Your task to perform on an android device: Open Amazon Image 0: 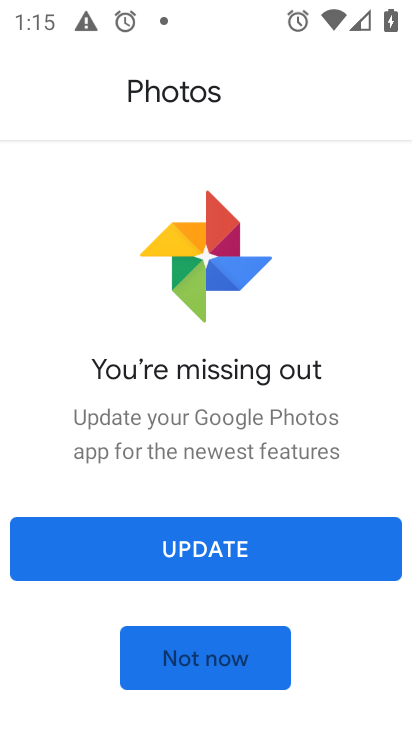
Step 0: press home button
Your task to perform on an android device: Open Amazon Image 1: 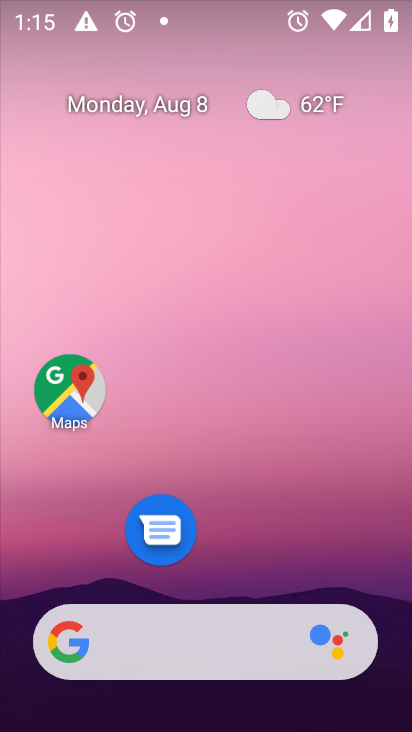
Step 1: drag from (233, 597) to (228, 171)
Your task to perform on an android device: Open Amazon Image 2: 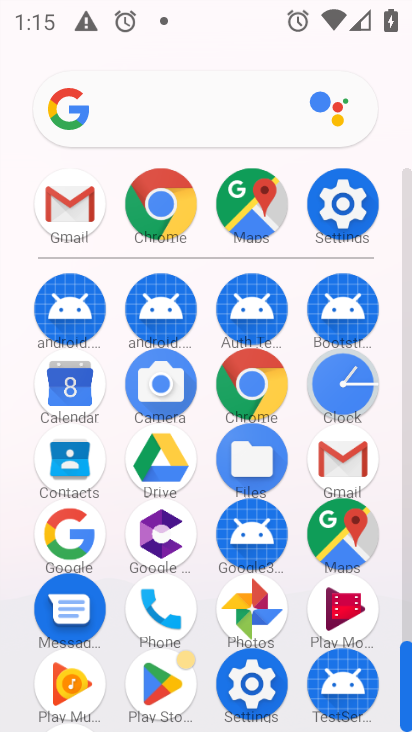
Step 2: click (251, 381)
Your task to perform on an android device: Open Amazon Image 3: 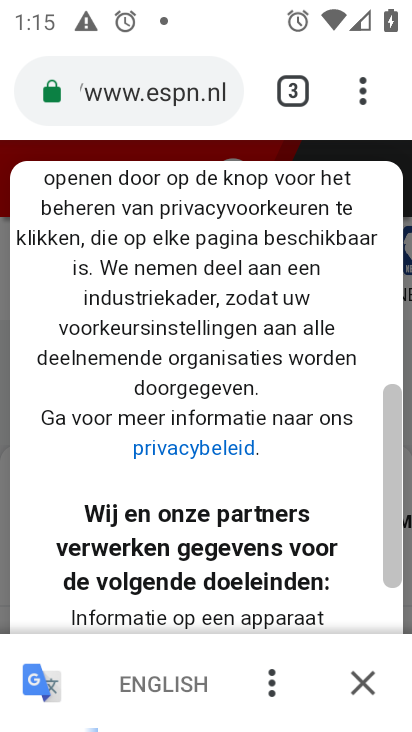
Step 3: drag from (361, 98) to (109, 201)
Your task to perform on an android device: Open Amazon Image 4: 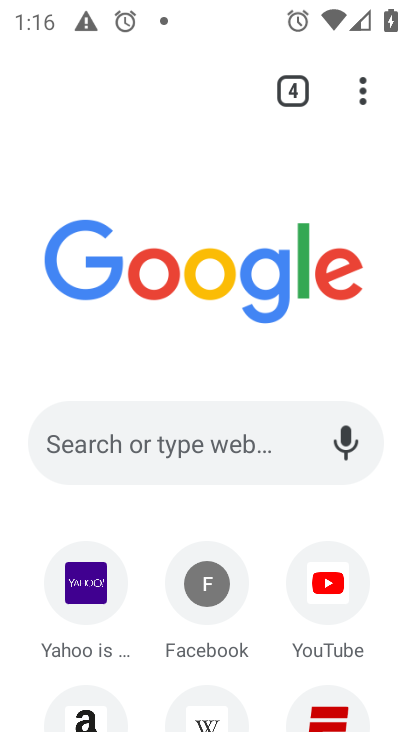
Step 4: click (88, 710)
Your task to perform on an android device: Open Amazon Image 5: 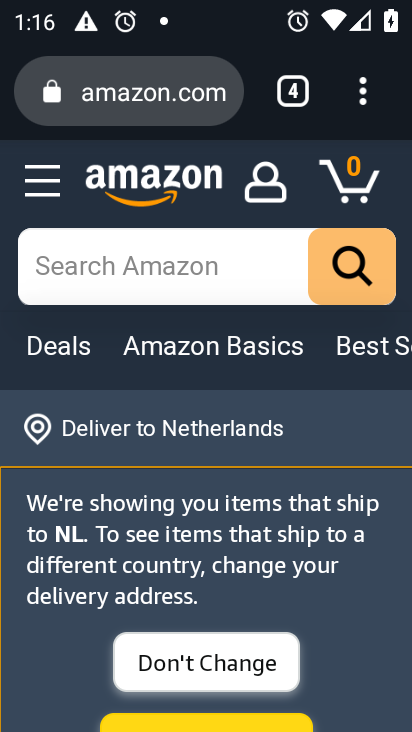
Step 5: task complete